Your task to perform on an android device: choose inbox layout in the gmail app Image 0: 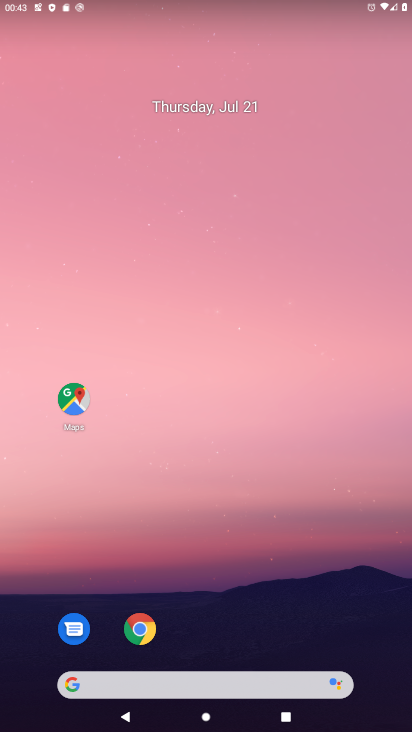
Step 0: drag from (323, 589) to (275, 138)
Your task to perform on an android device: choose inbox layout in the gmail app Image 1: 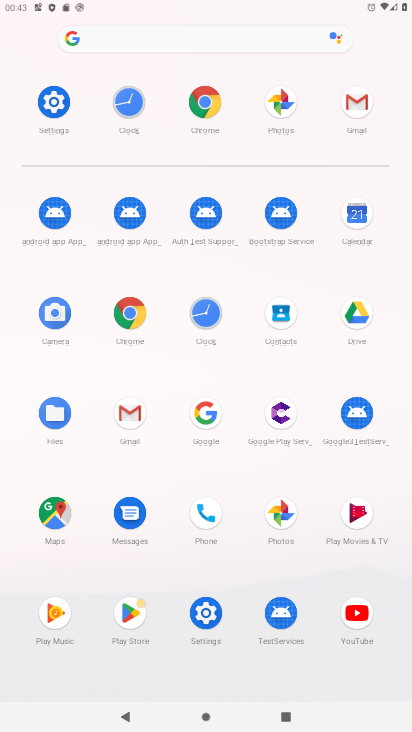
Step 1: click (360, 111)
Your task to perform on an android device: choose inbox layout in the gmail app Image 2: 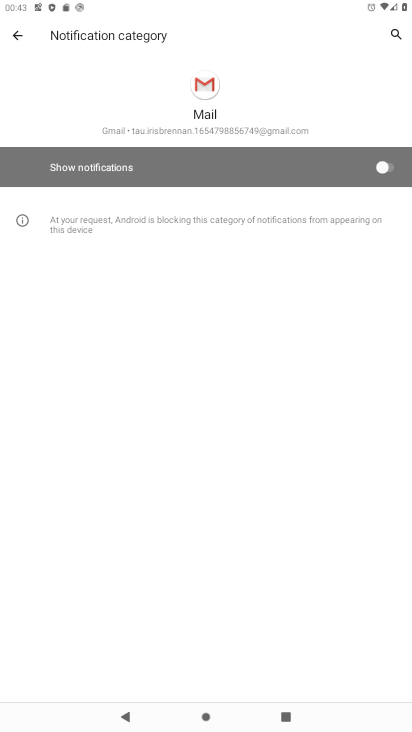
Step 2: click (13, 43)
Your task to perform on an android device: choose inbox layout in the gmail app Image 3: 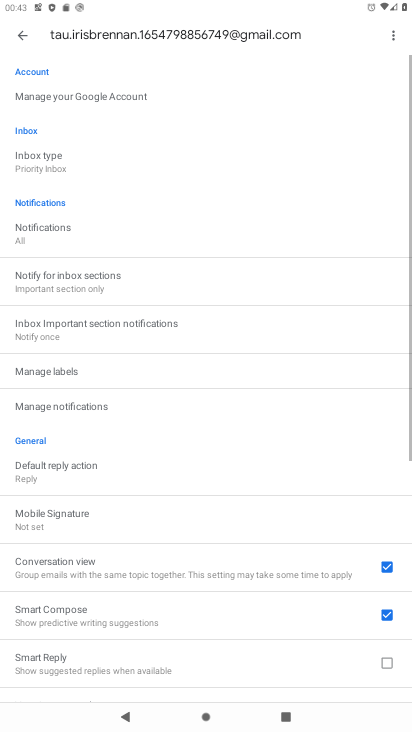
Step 3: drag from (248, 177) to (292, 669)
Your task to perform on an android device: choose inbox layout in the gmail app Image 4: 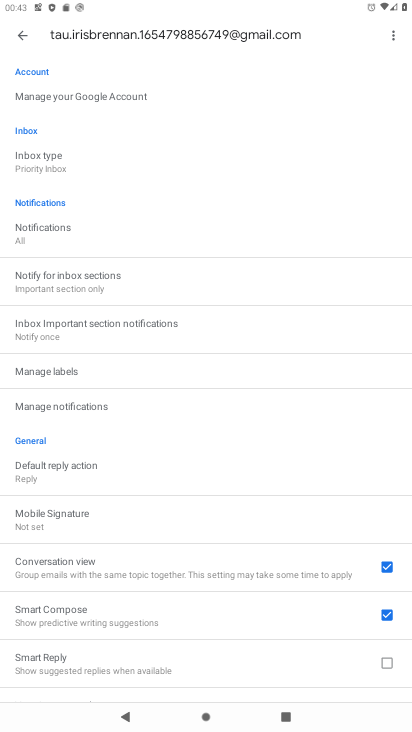
Step 4: click (59, 169)
Your task to perform on an android device: choose inbox layout in the gmail app Image 5: 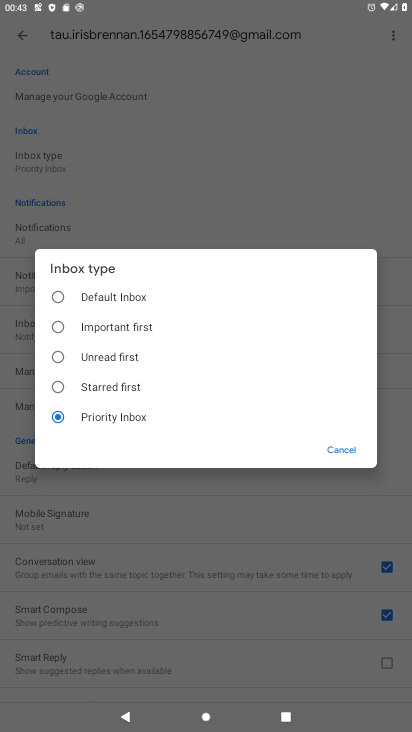
Step 5: task complete